Your task to perform on an android device: turn on the 24-hour format for clock Image 0: 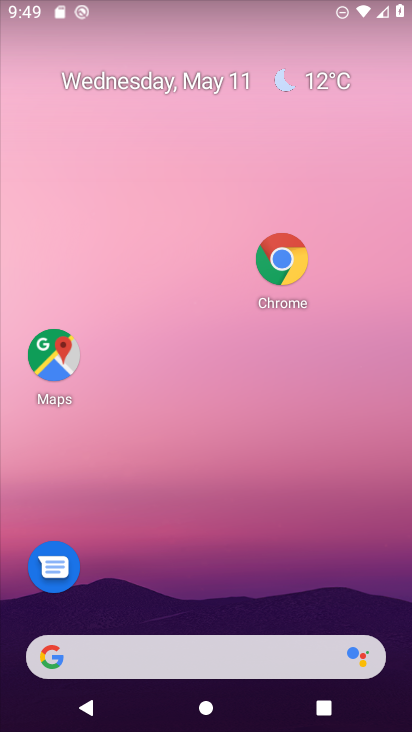
Step 0: drag from (188, 639) to (335, 181)
Your task to perform on an android device: turn on the 24-hour format for clock Image 1: 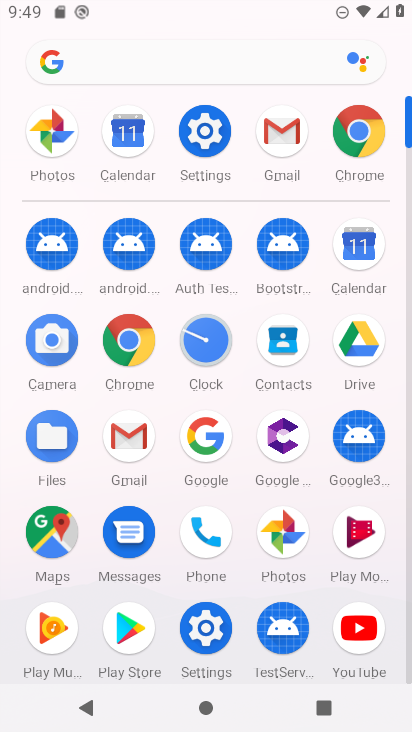
Step 1: click (210, 352)
Your task to perform on an android device: turn on the 24-hour format for clock Image 2: 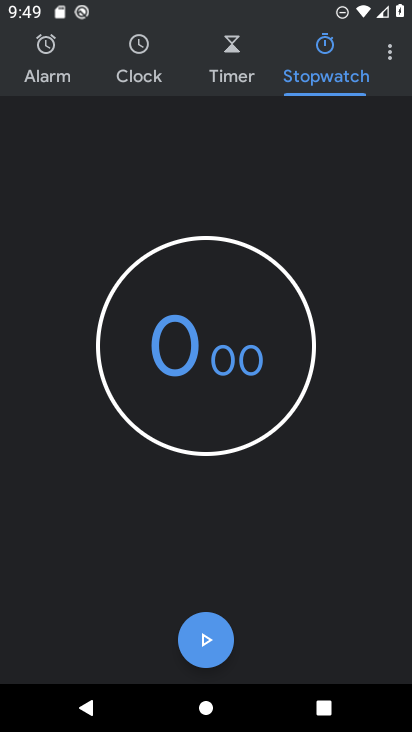
Step 2: click (388, 52)
Your task to perform on an android device: turn on the 24-hour format for clock Image 3: 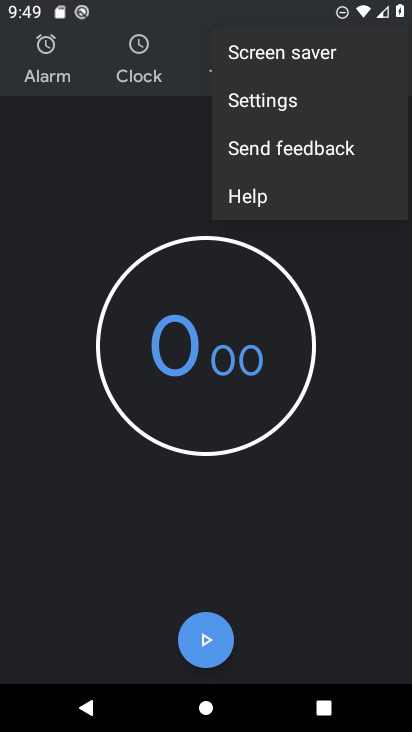
Step 3: click (295, 103)
Your task to perform on an android device: turn on the 24-hour format for clock Image 4: 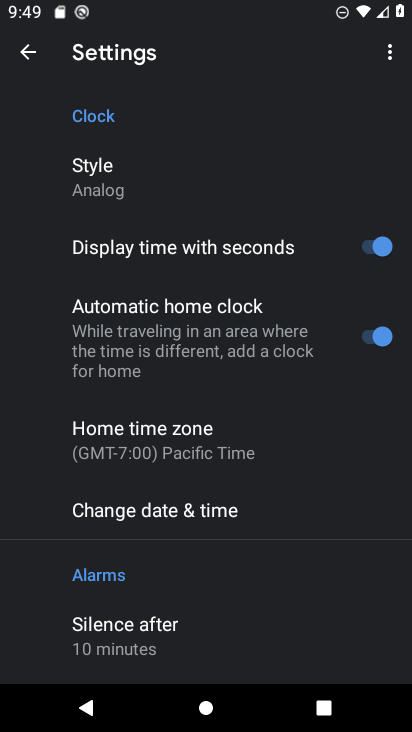
Step 4: click (199, 513)
Your task to perform on an android device: turn on the 24-hour format for clock Image 5: 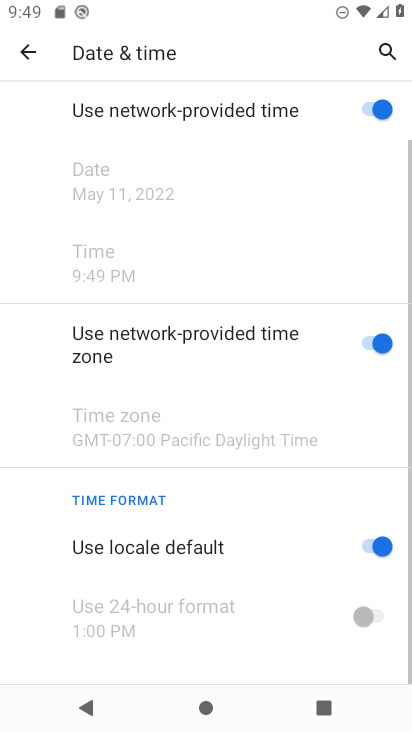
Step 5: drag from (236, 612) to (360, 123)
Your task to perform on an android device: turn on the 24-hour format for clock Image 6: 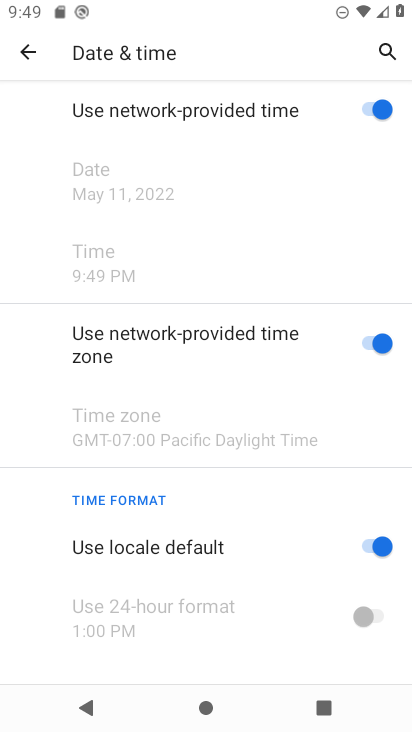
Step 6: click (366, 549)
Your task to perform on an android device: turn on the 24-hour format for clock Image 7: 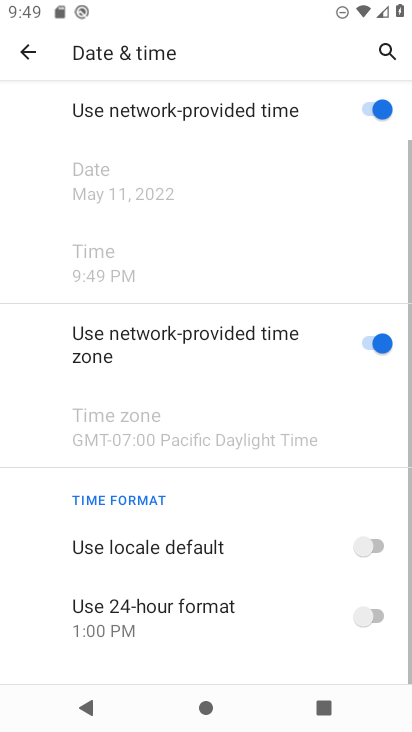
Step 7: click (382, 619)
Your task to perform on an android device: turn on the 24-hour format for clock Image 8: 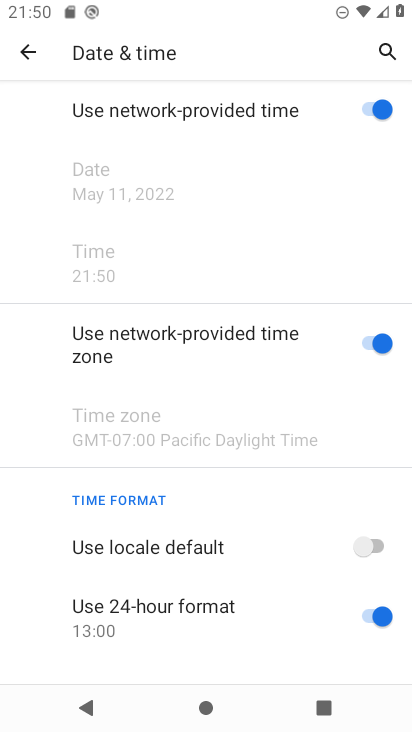
Step 8: task complete